Your task to perform on an android device: Go to CNN.com Image 0: 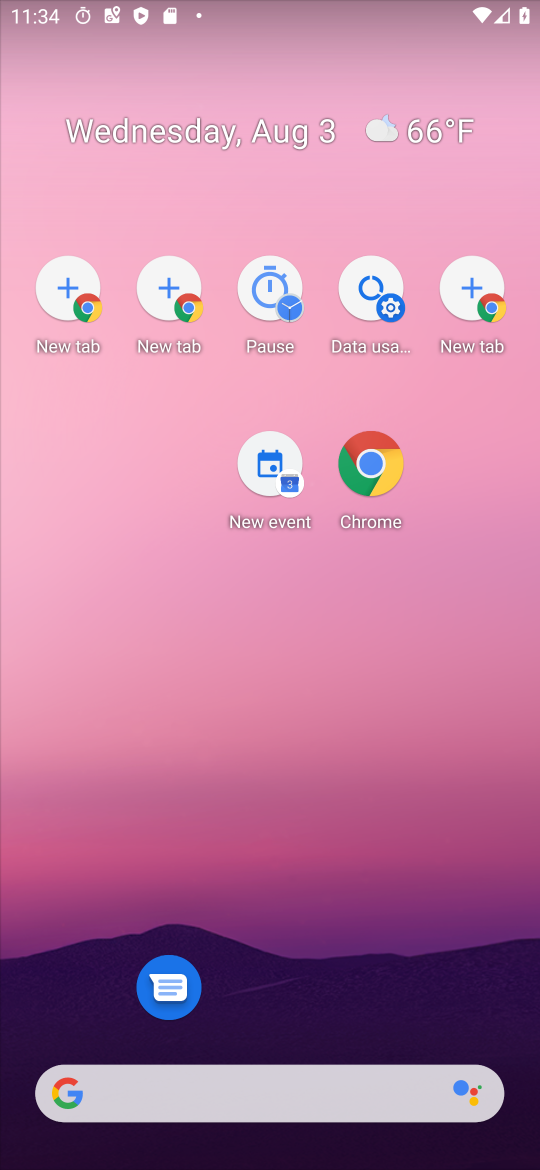
Step 0: drag from (250, 640) to (158, 184)
Your task to perform on an android device: Go to CNN.com Image 1: 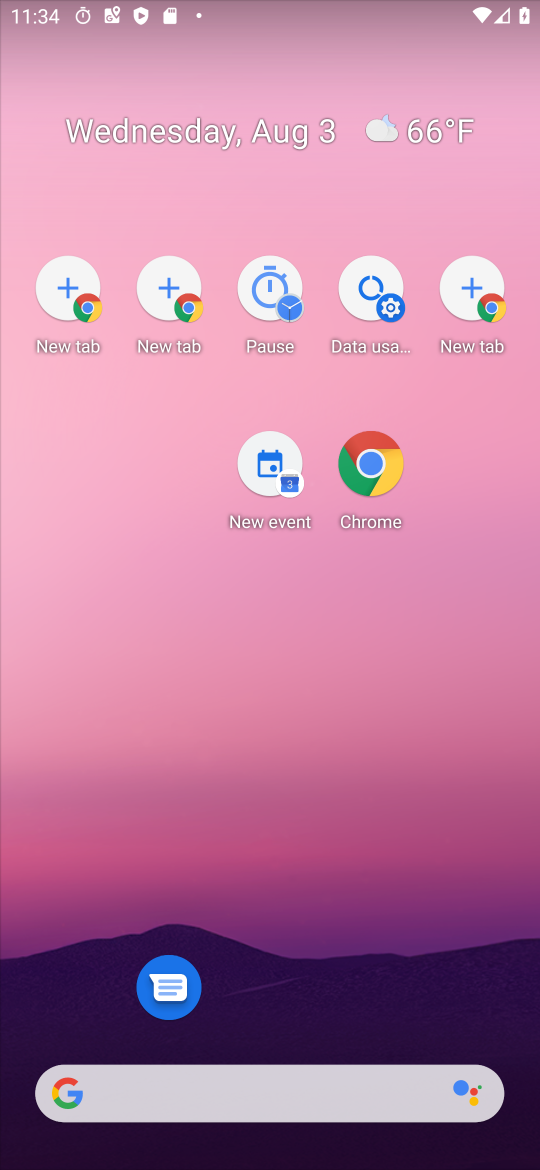
Step 1: drag from (262, 741) to (194, 252)
Your task to perform on an android device: Go to CNN.com Image 2: 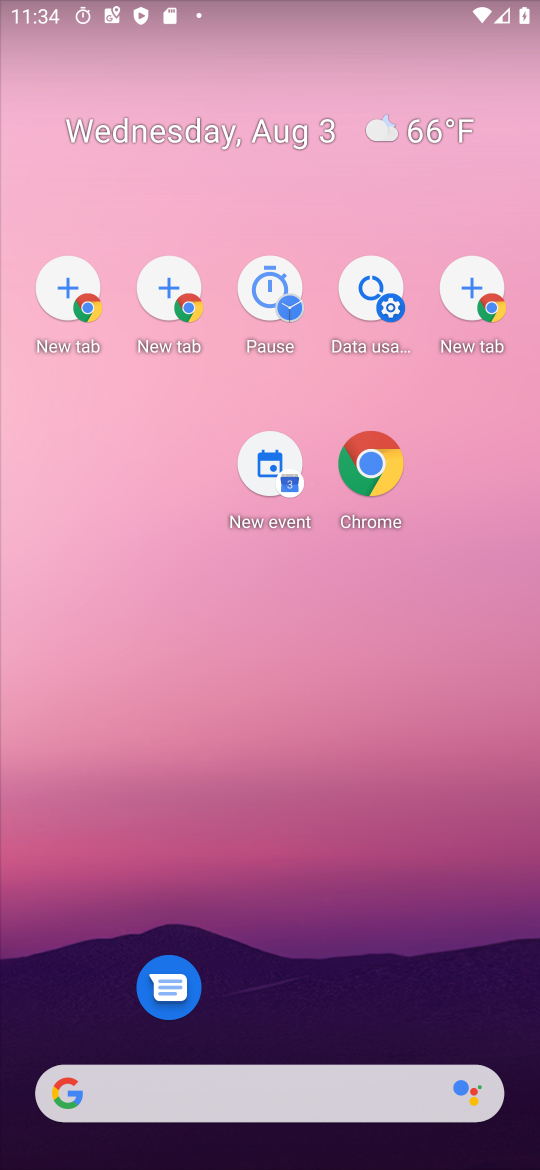
Step 2: drag from (253, 744) to (199, 302)
Your task to perform on an android device: Go to CNN.com Image 3: 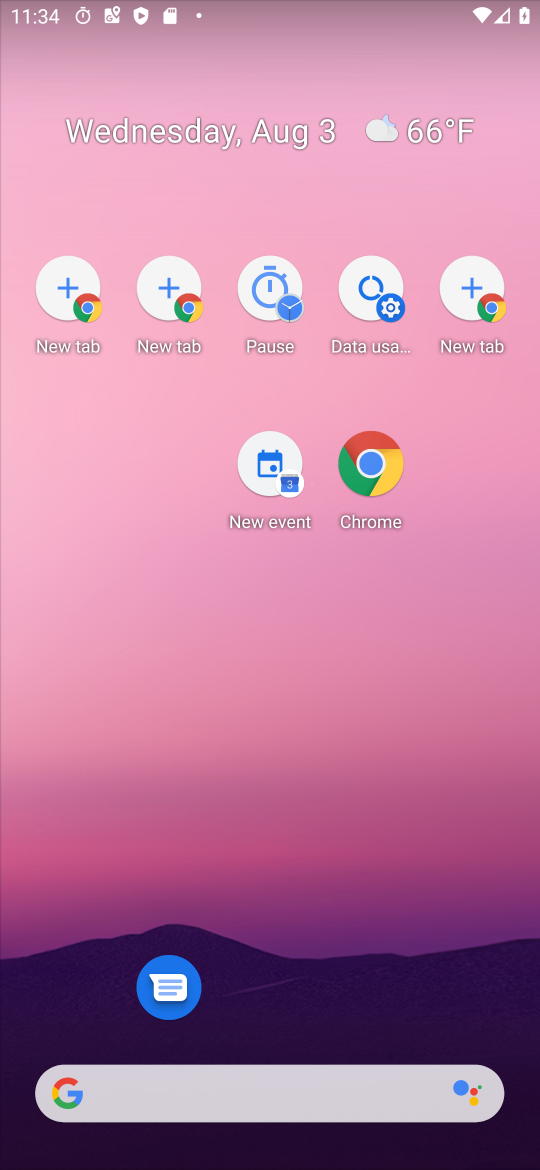
Step 3: click (127, 431)
Your task to perform on an android device: Go to CNN.com Image 4: 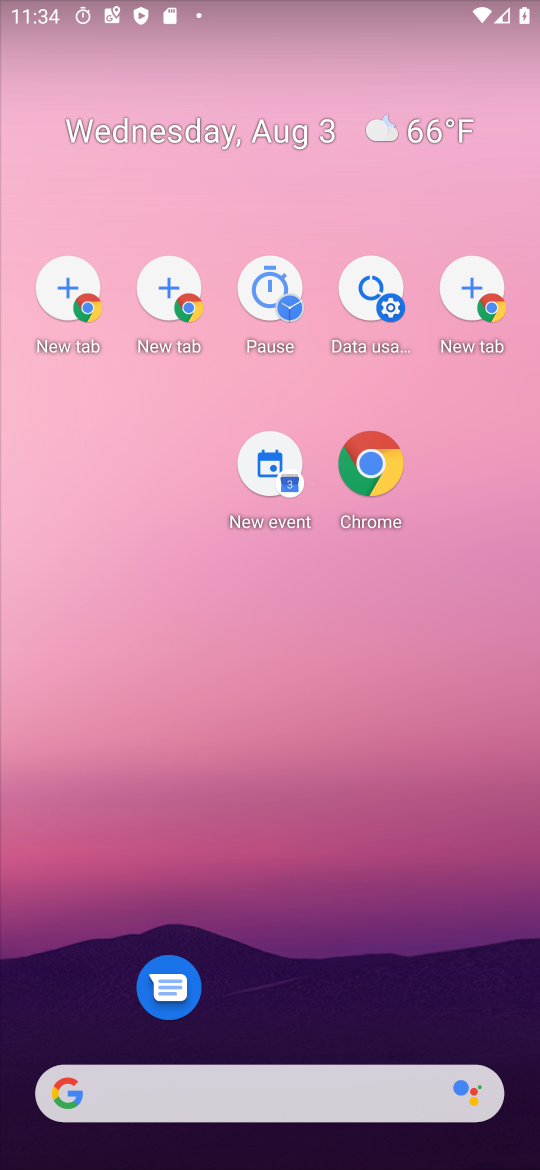
Step 4: drag from (274, 773) to (252, 223)
Your task to perform on an android device: Go to CNN.com Image 5: 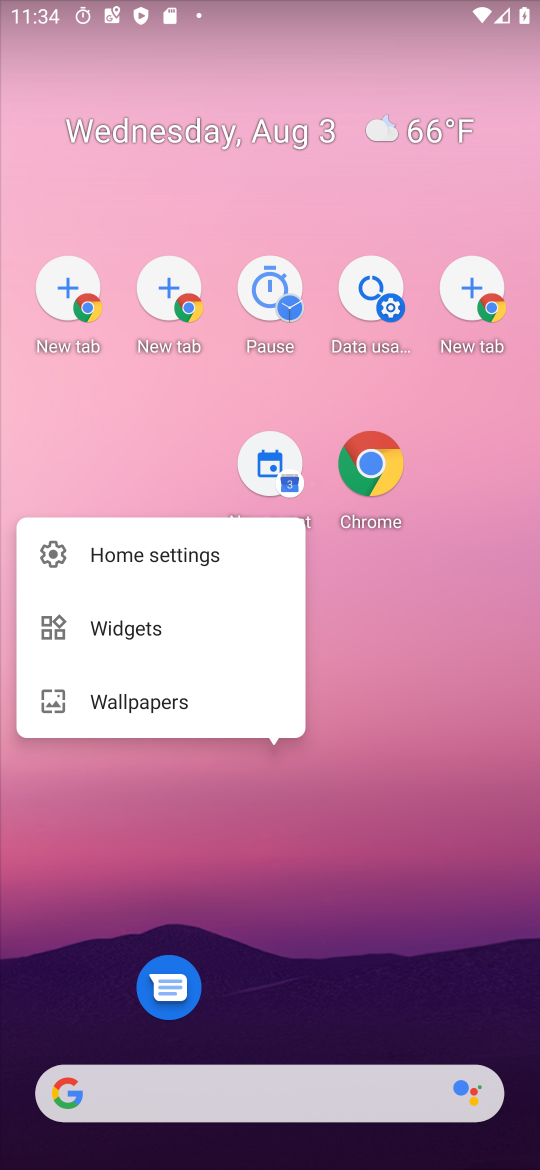
Step 5: click (305, 223)
Your task to perform on an android device: Go to CNN.com Image 6: 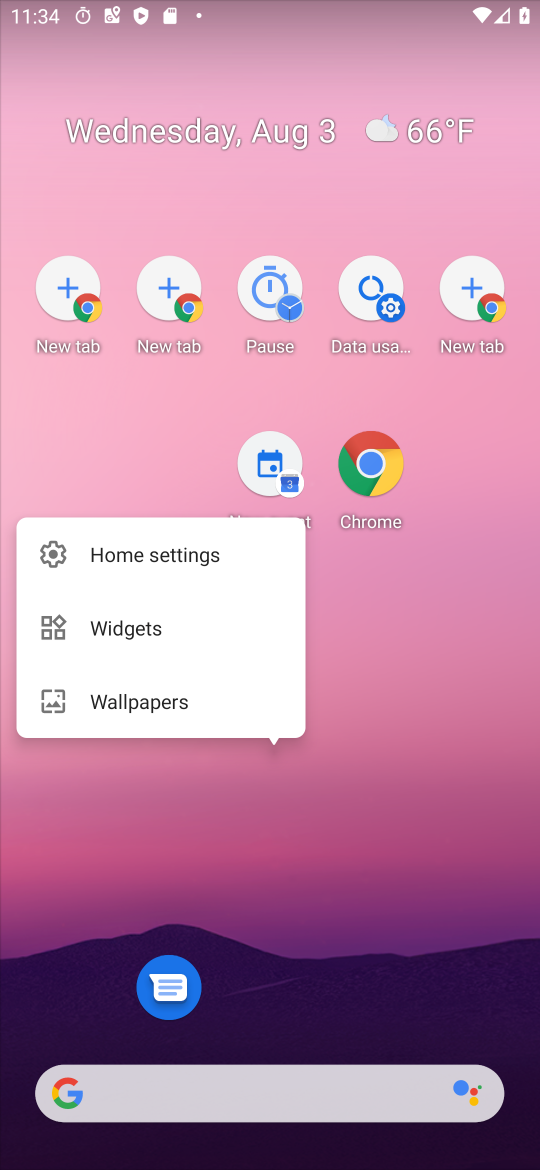
Step 6: click (284, 328)
Your task to perform on an android device: Go to CNN.com Image 7: 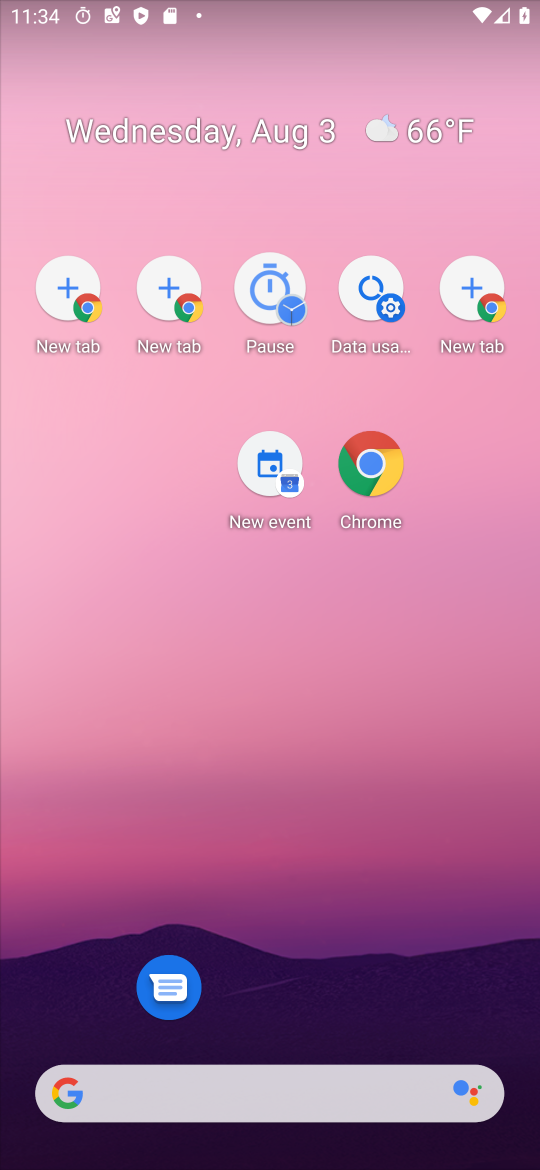
Step 7: drag from (287, 491) to (232, 291)
Your task to perform on an android device: Go to CNN.com Image 8: 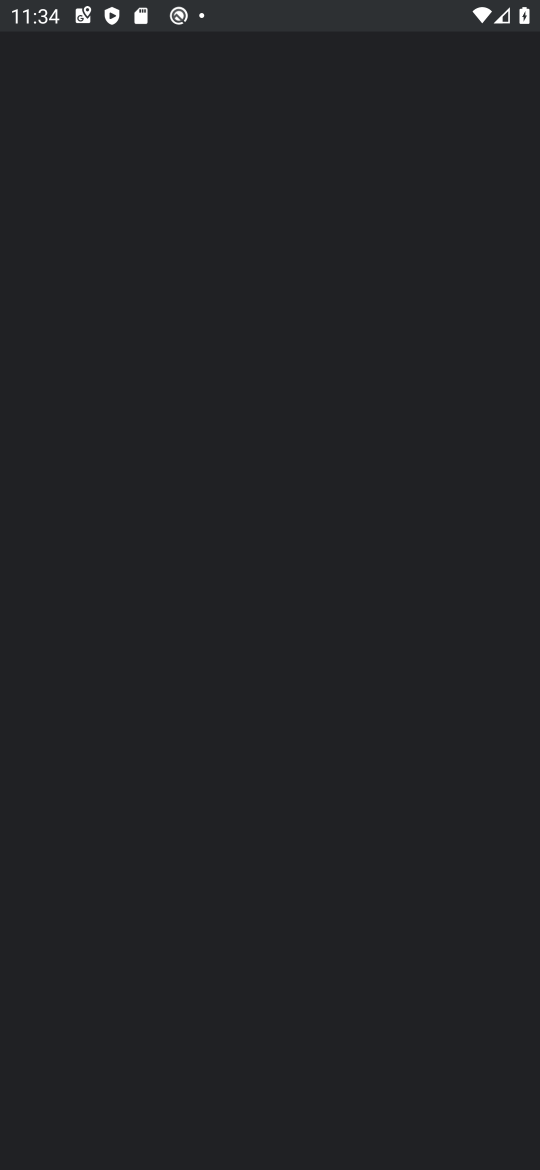
Step 8: drag from (239, 776) to (206, 448)
Your task to perform on an android device: Go to CNN.com Image 9: 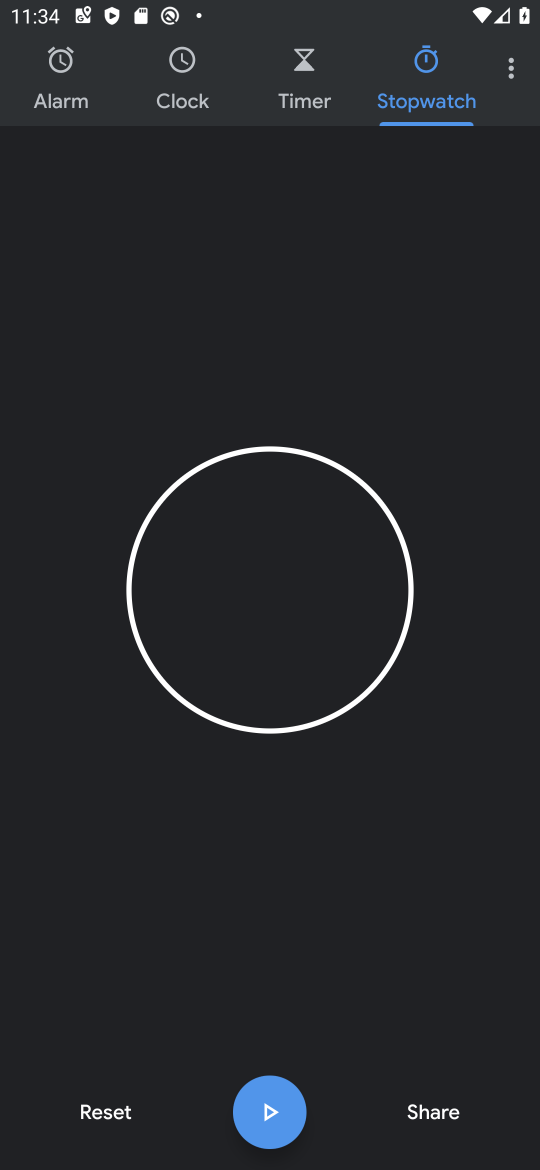
Step 9: press back button
Your task to perform on an android device: Go to CNN.com Image 10: 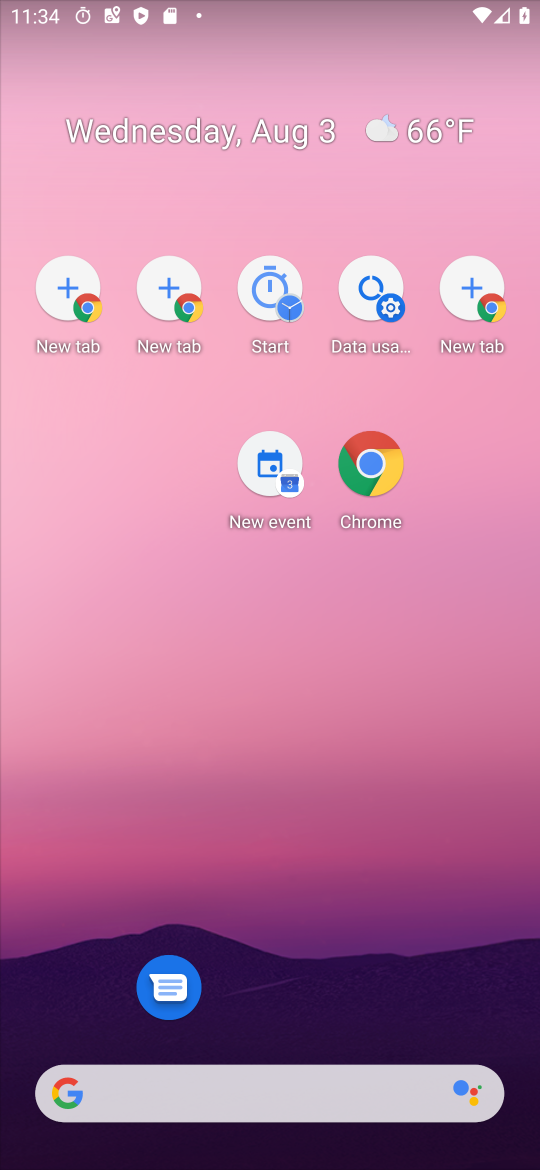
Step 10: drag from (299, 298) to (239, 115)
Your task to perform on an android device: Go to CNN.com Image 11: 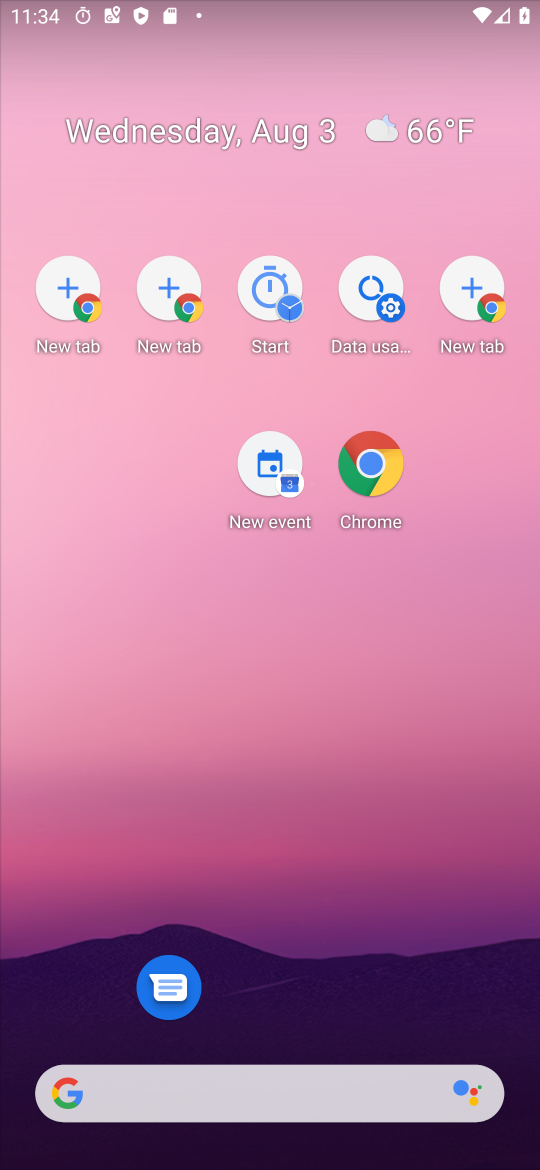
Step 11: click (372, 471)
Your task to perform on an android device: Go to CNN.com Image 12: 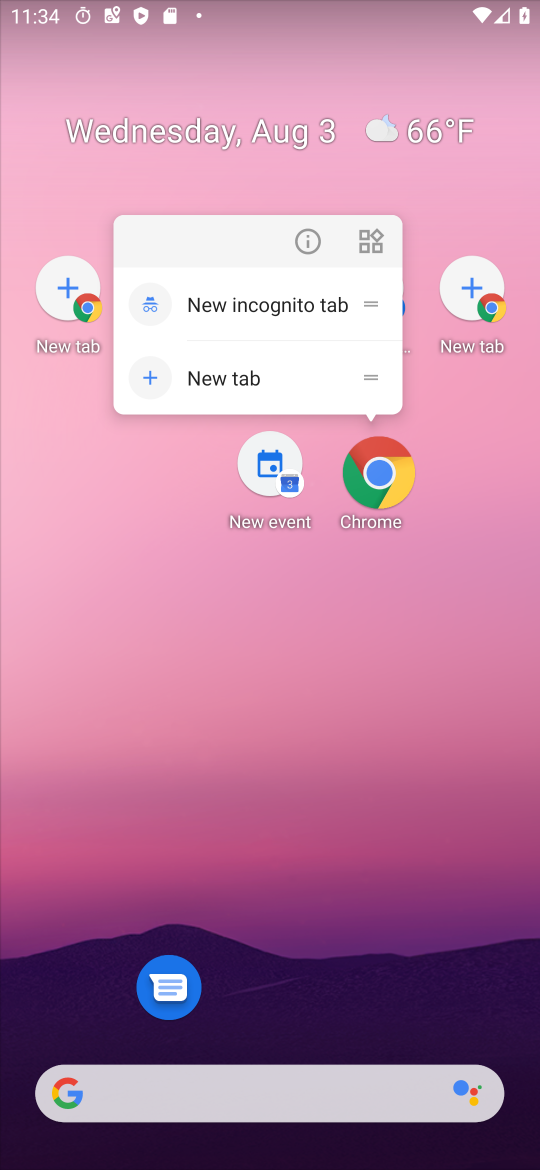
Step 12: click (380, 480)
Your task to perform on an android device: Go to CNN.com Image 13: 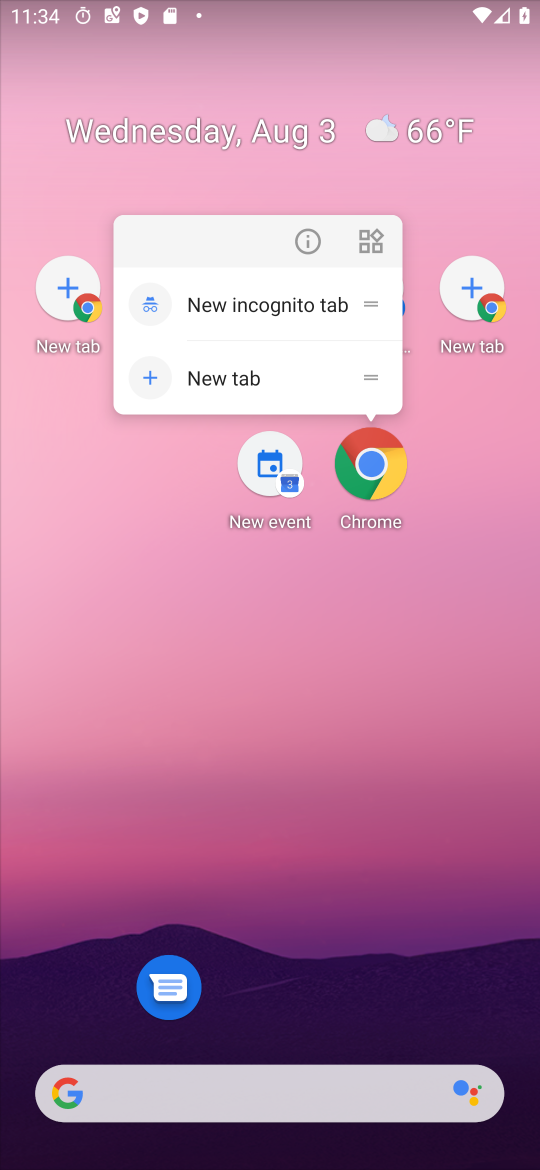
Step 13: click (380, 463)
Your task to perform on an android device: Go to CNN.com Image 14: 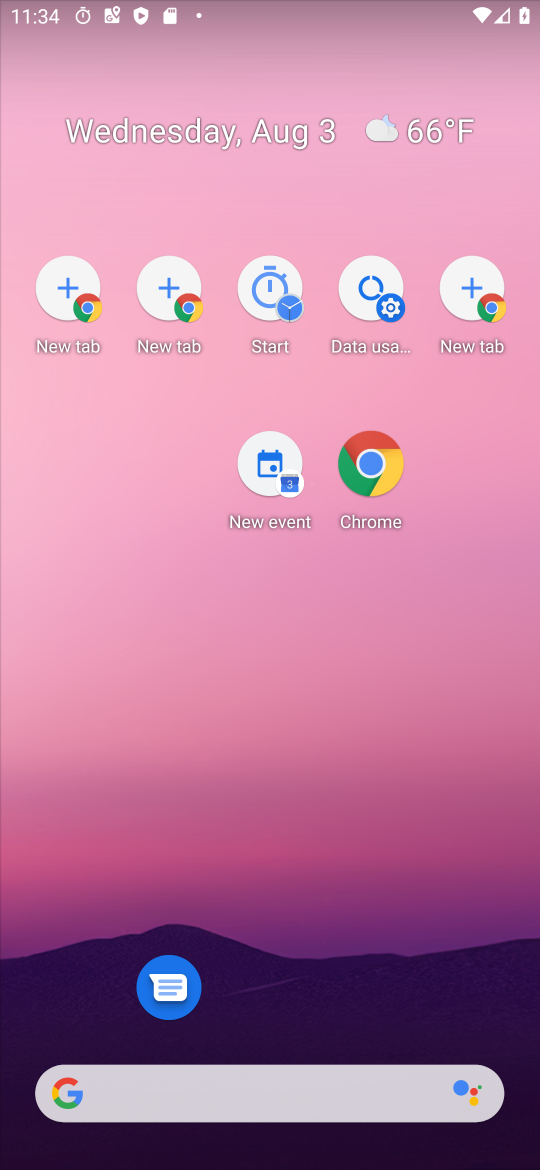
Step 14: click (380, 463)
Your task to perform on an android device: Go to CNN.com Image 15: 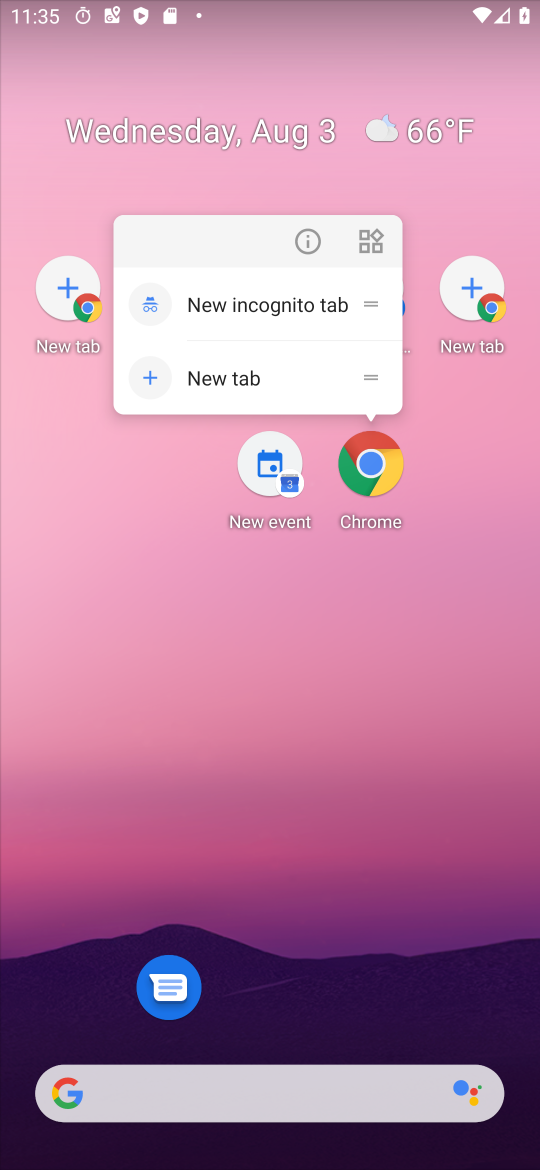
Step 15: click (210, 384)
Your task to perform on an android device: Go to CNN.com Image 16: 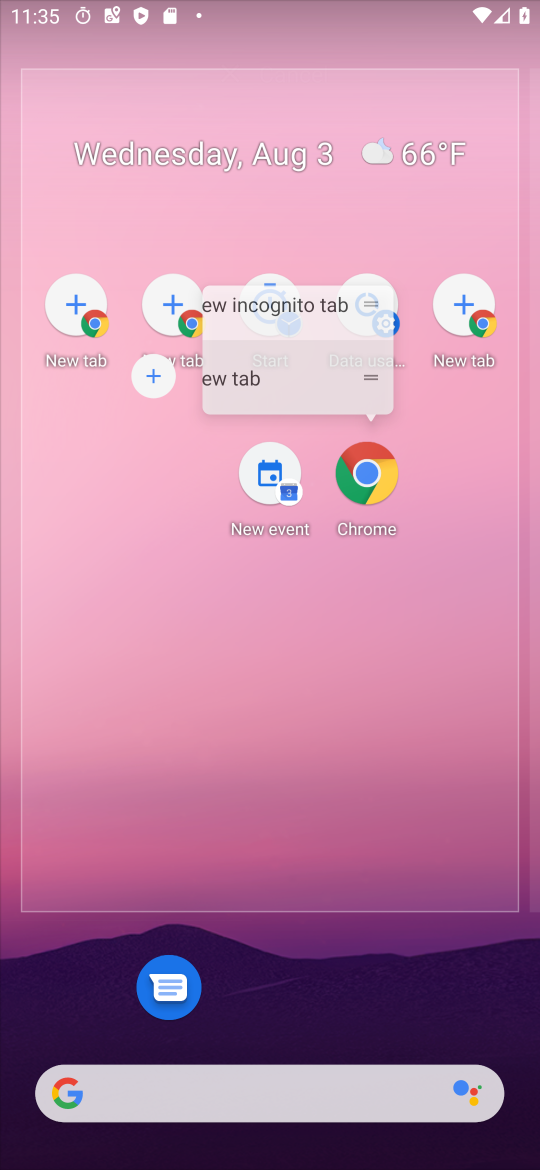
Step 16: click (212, 381)
Your task to perform on an android device: Go to CNN.com Image 17: 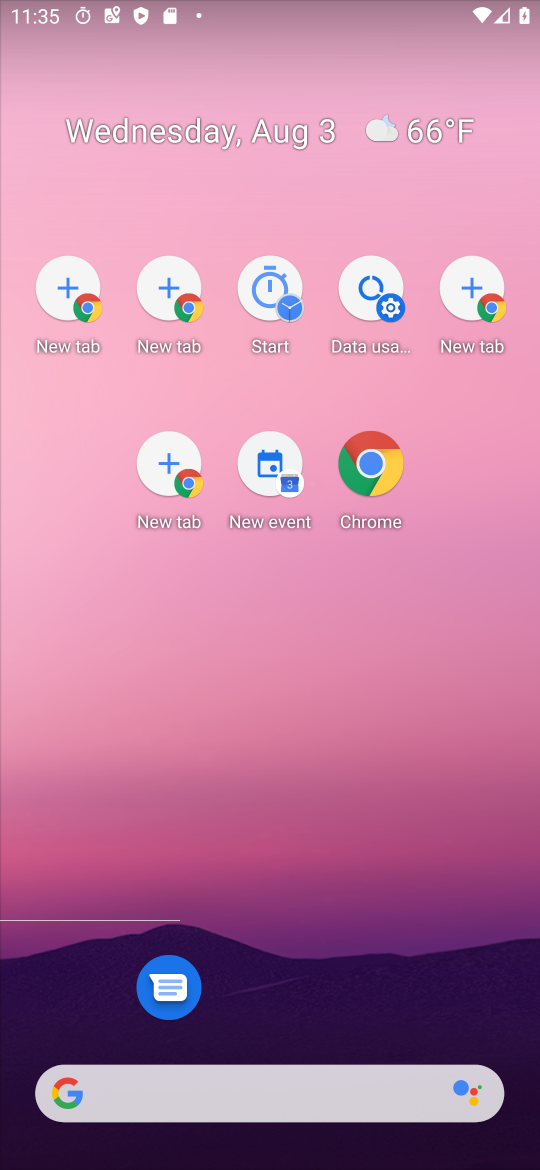
Step 17: drag from (271, 364) to (290, 225)
Your task to perform on an android device: Go to CNN.com Image 18: 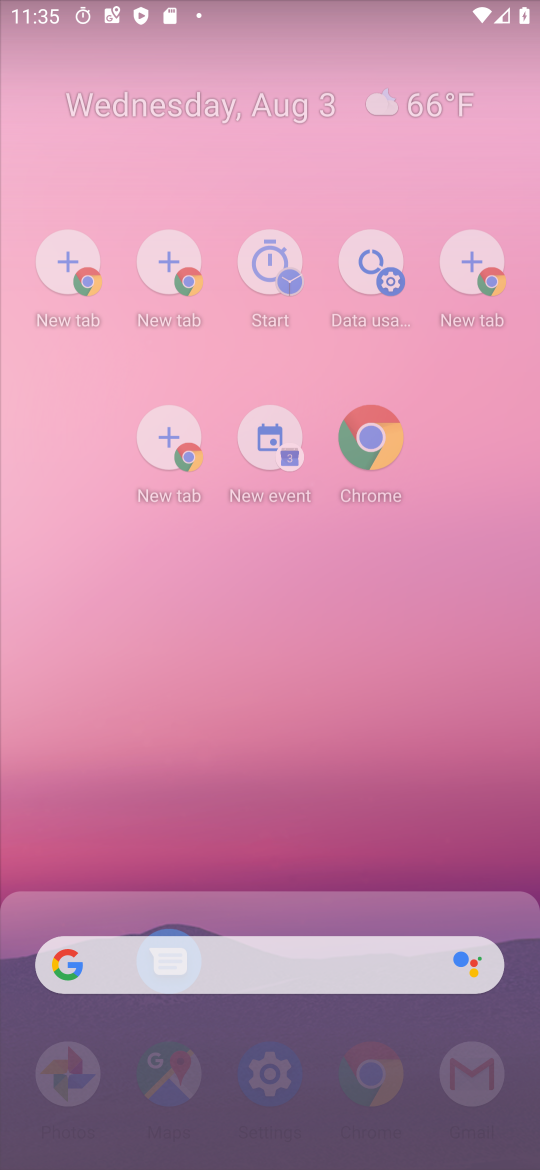
Step 18: drag from (329, 676) to (265, 160)
Your task to perform on an android device: Go to CNN.com Image 19: 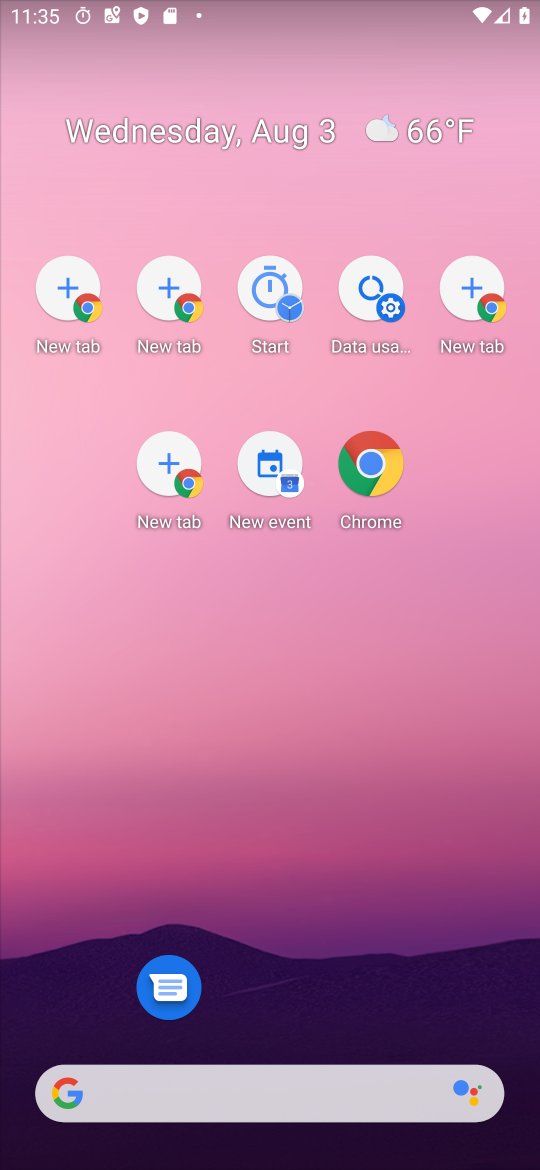
Step 19: drag from (338, 30) to (303, 120)
Your task to perform on an android device: Go to CNN.com Image 20: 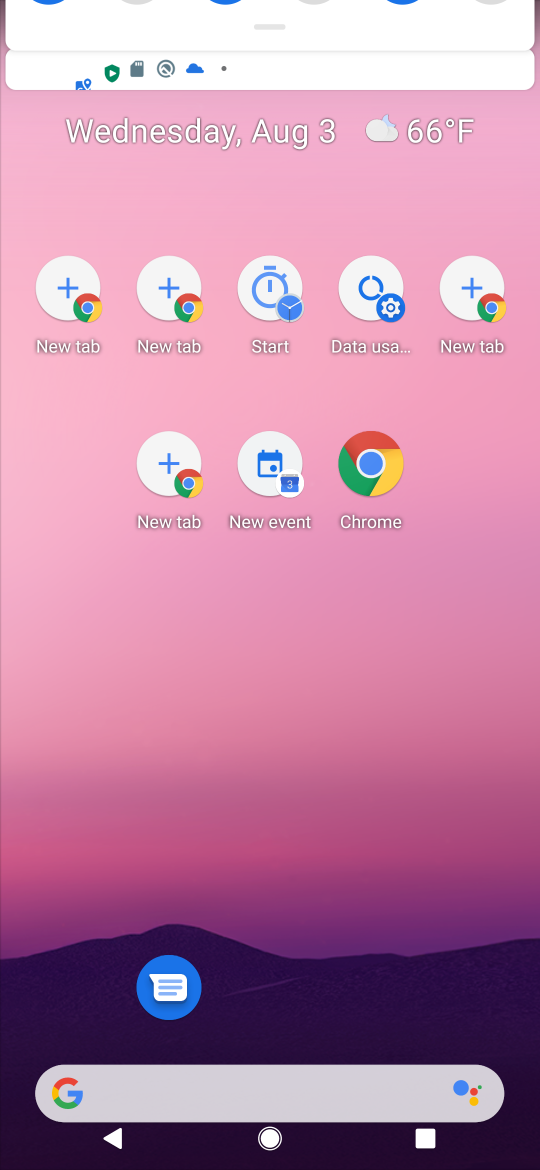
Step 20: drag from (332, 679) to (306, 227)
Your task to perform on an android device: Go to CNN.com Image 21: 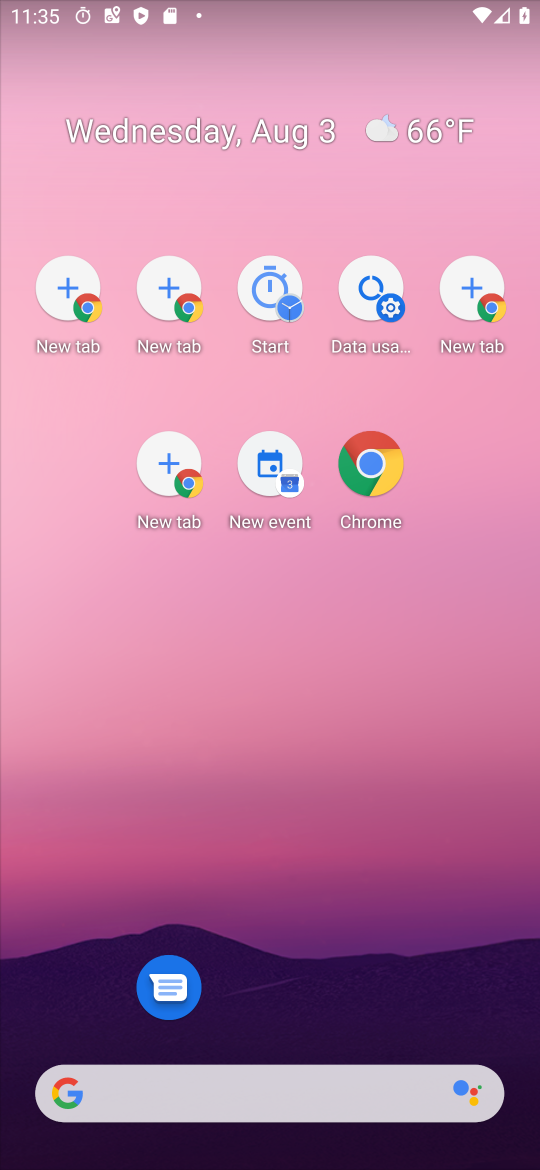
Step 21: click (351, 468)
Your task to perform on an android device: Go to CNN.com Image 22: 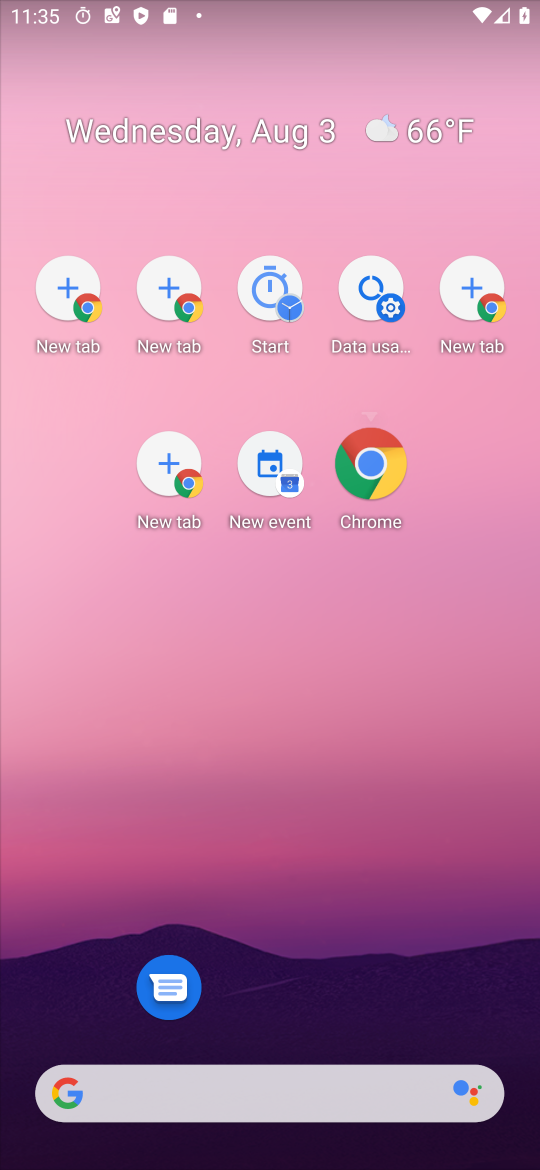
Step 22: click (351, 468)
Your task to perform on an android device: Go to CNN.com Image 23: 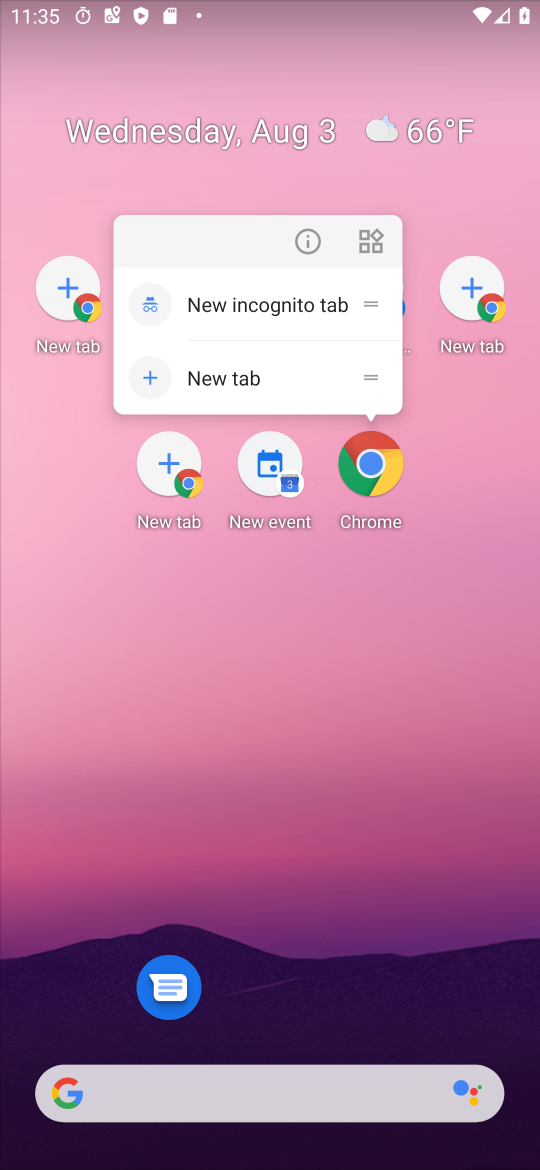
Step 23: click (361, 466)
Your task to perform on an android device: Go to CNN.com Image 24: 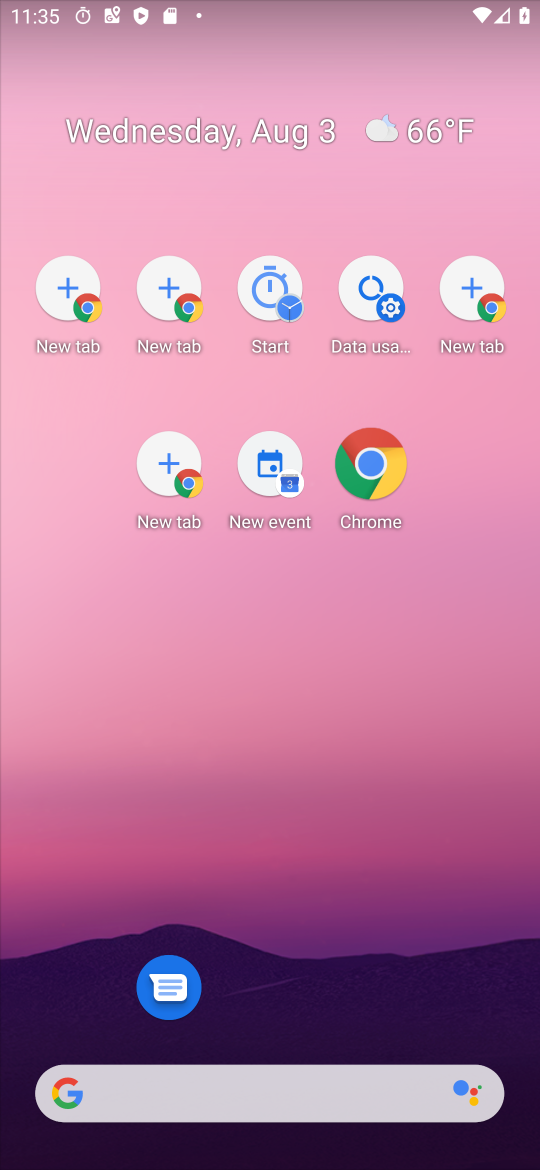
Step 24: click (253, 388)
Your task to perform on an android device: Go to CNN.com Image 25: 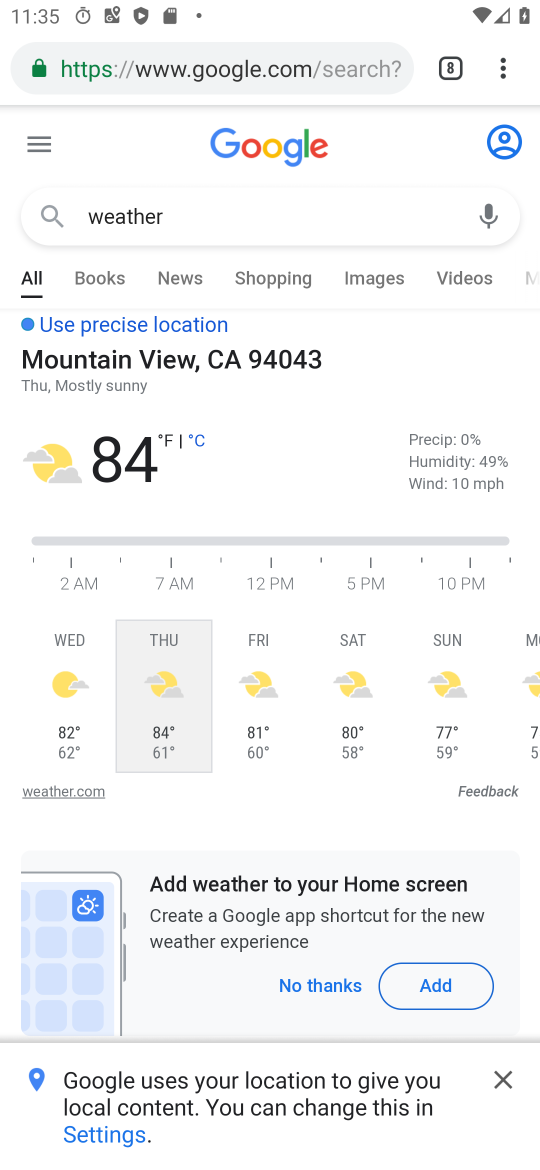
Step 25: drag from (495, 69) to (258, 143)
Your task to perform on an android device: Go to CNN.com Image 26: 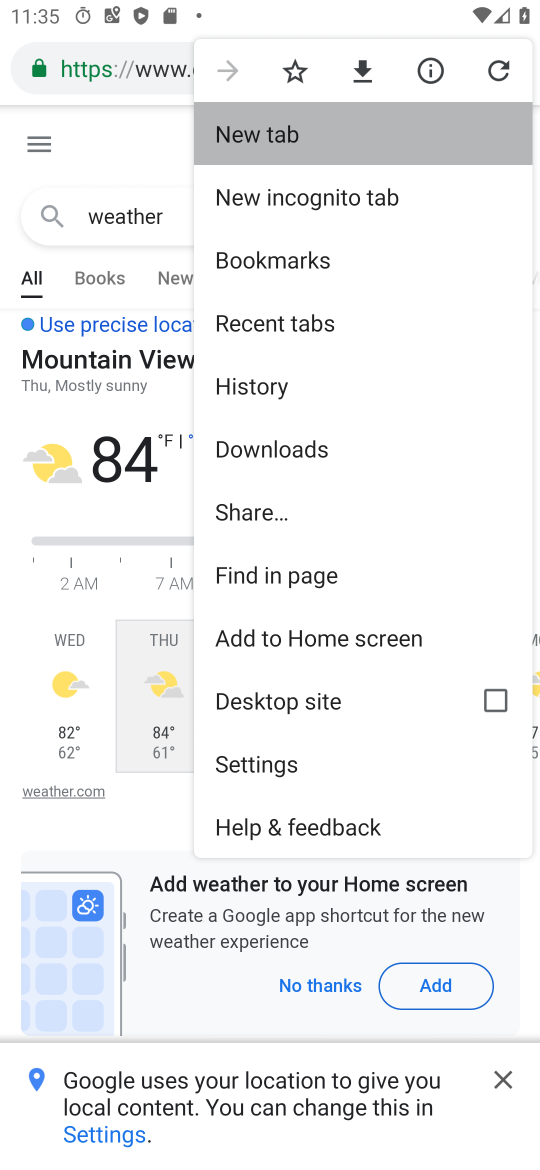
Step 26: click (258, 143)
Your task to perform on an android device: Go to CNN.com Image 27: 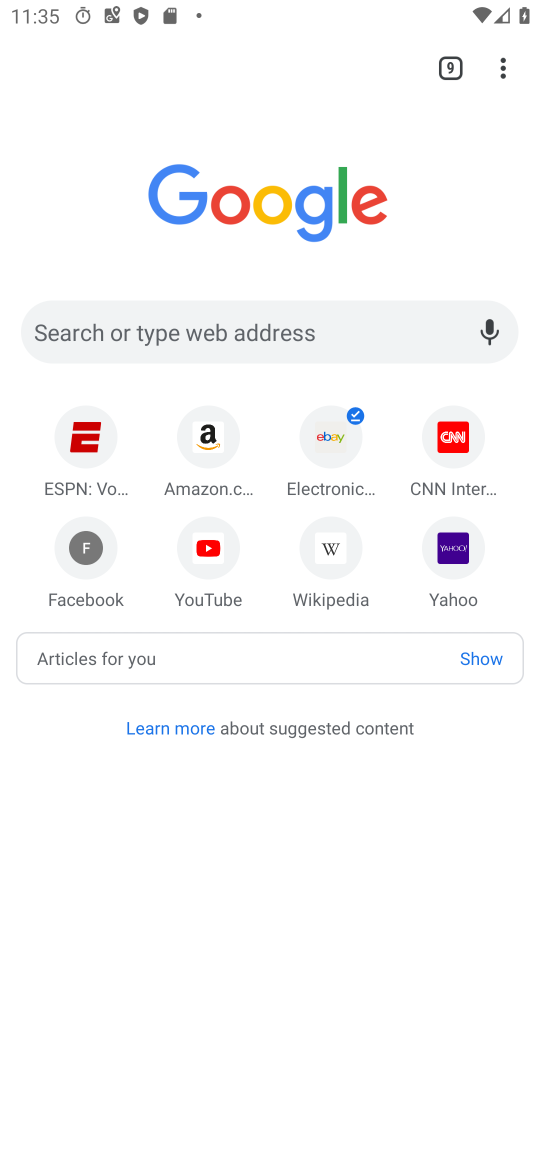
Step 27: click (105, 340)
Your task to perform on an android device: Go to CNN.com Image 28: 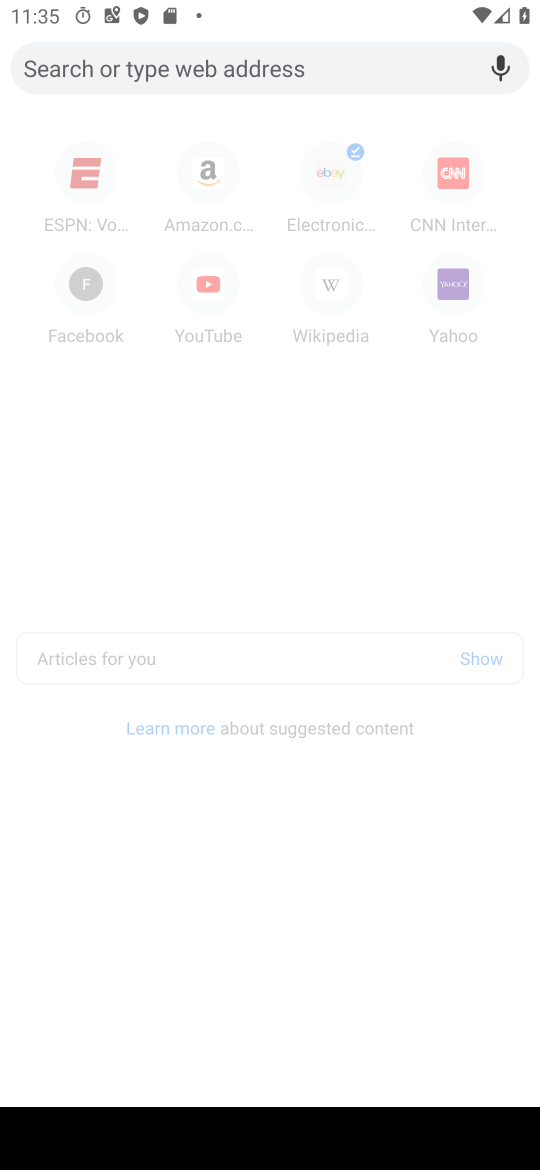
Step 28: type "CNN.com"
Your task to perform on an android device: Go to CNN.com Image 29: 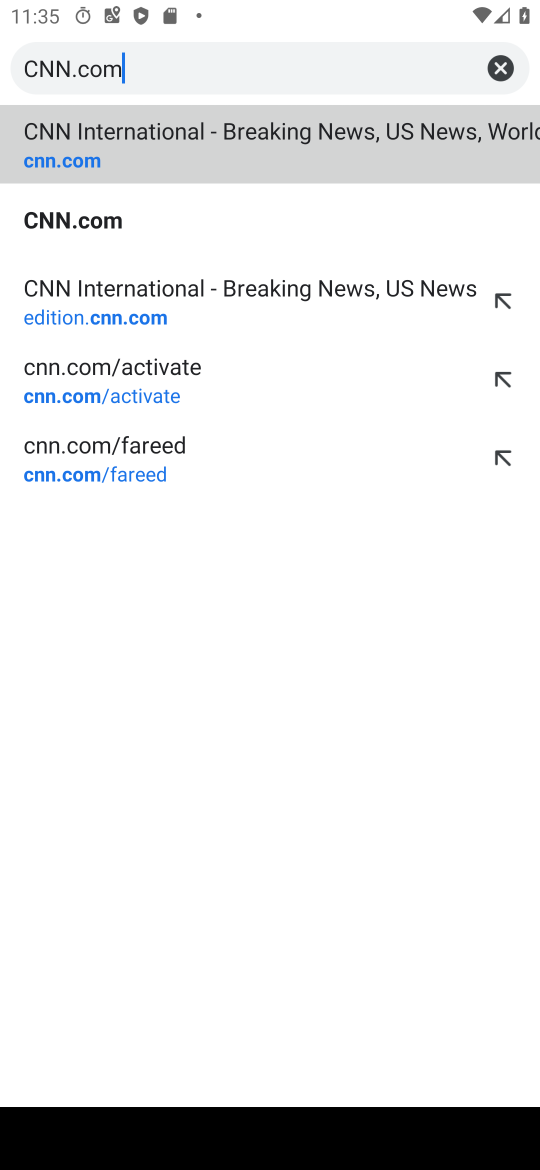
Step 29: click (120, 132)
Your task to perform on an android device: Go to CNN.com Image 30: 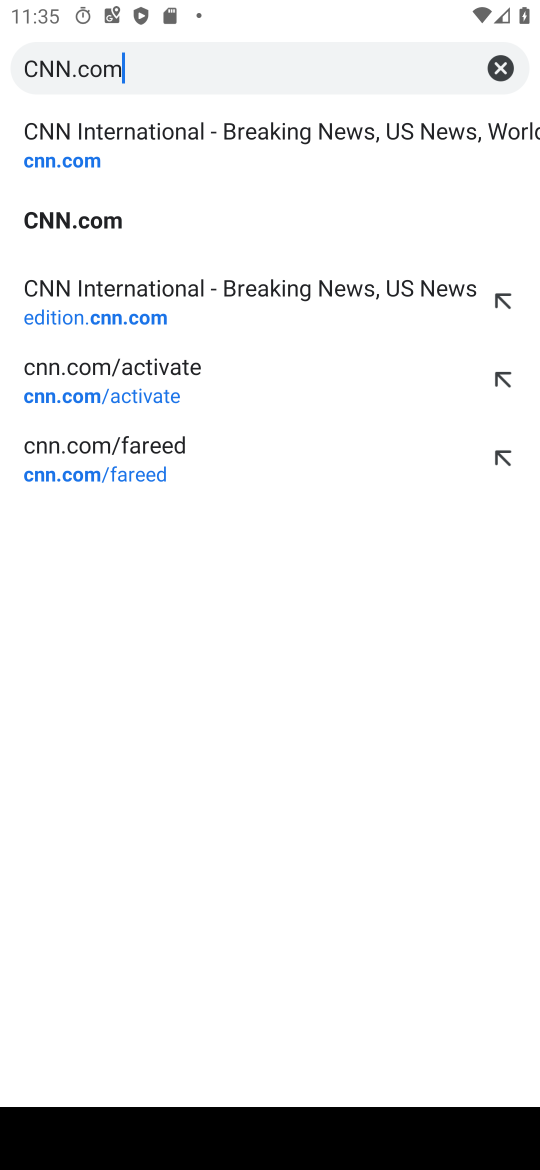
Step 30: click (130, 159)
Your task to perform on an android device: Go to CNN.com Image 31: 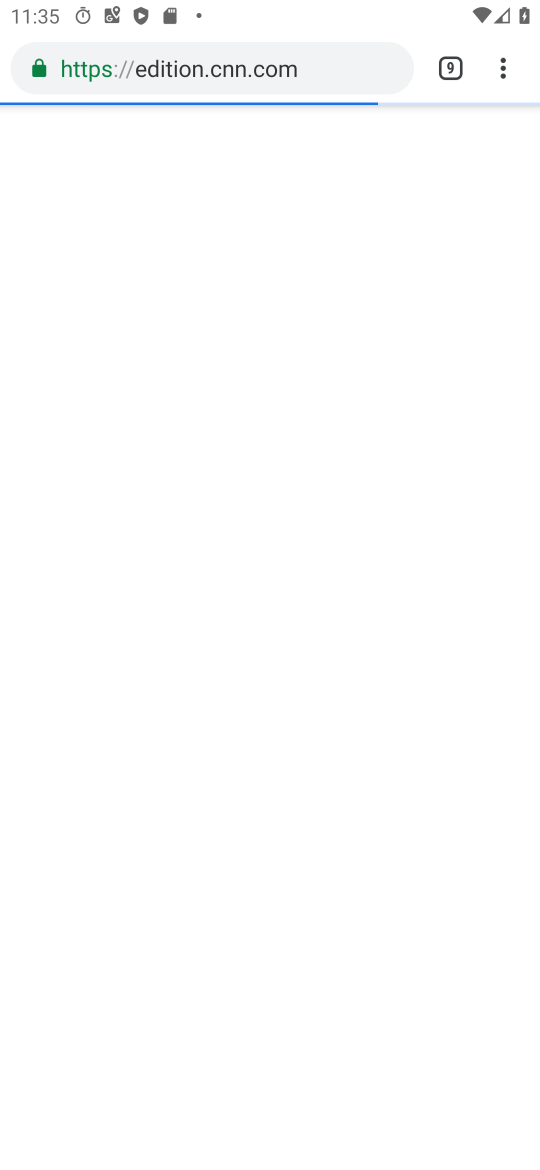
Step 31: task complete